Your task to perform on an android device: change keyboard looks Image 0: 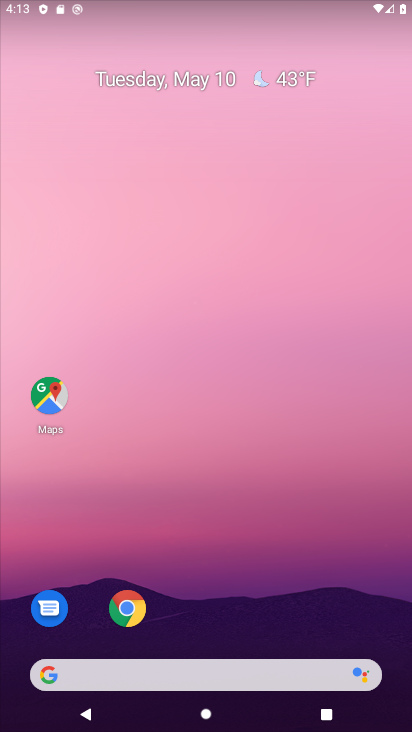
Step 0: drag from (260, 578) to (93, 4)
Your task to perform on an android device: change keyboard looks Image 1: 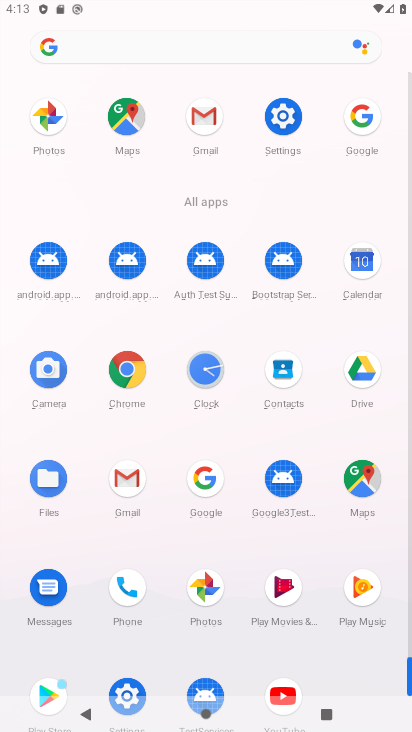
Step 1: click (278, 87)
Your task to perform on an android device: change keyboard looks Image 2: 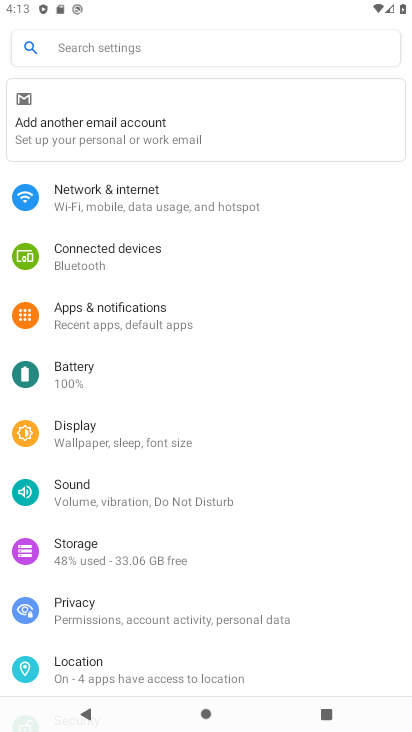
Step 2: drag from (150, 333) to (102, 161)
Your task to perform on an android device: change keyboard looks Image 3: 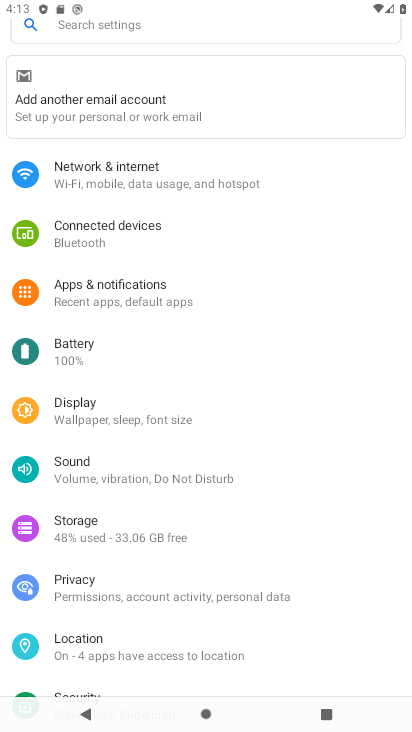
Step 3: drag from (130, 585) to (34, 228)
Your task to perform on an android device: change keyboard looks Image 4: 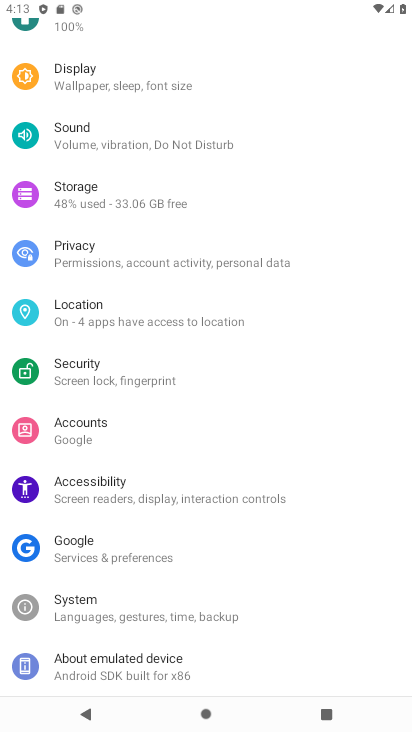
Step 4: click (78, 600)
Your task to perform on an android device: change keyboard looks Image 5: 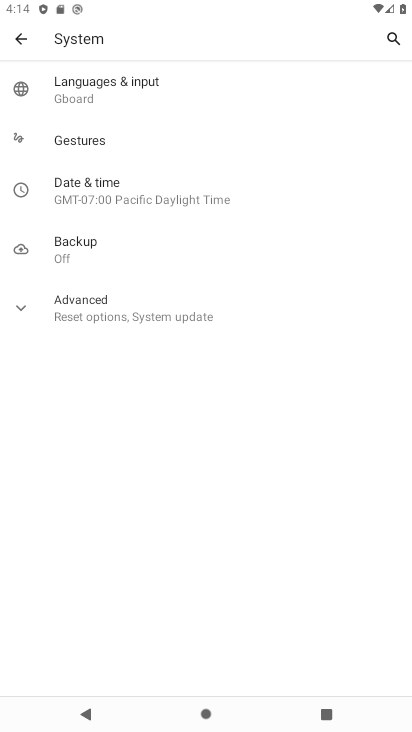
Step 5: click (69, 86)
Your task to perform on an android device: change keyboard looks Image 6: 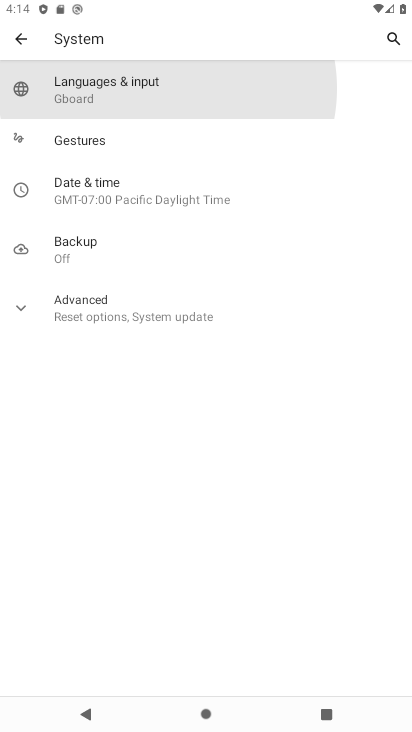
Step 6: click (69, 86)
Your task to perform on an android device: change keyboard looks Image 7: 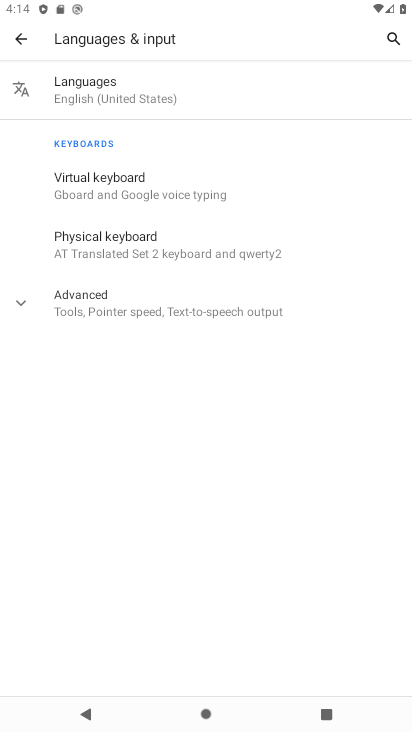
Step 7: click (71, 86)
Your task to perform on an android device: change keyboard looks Image 8: 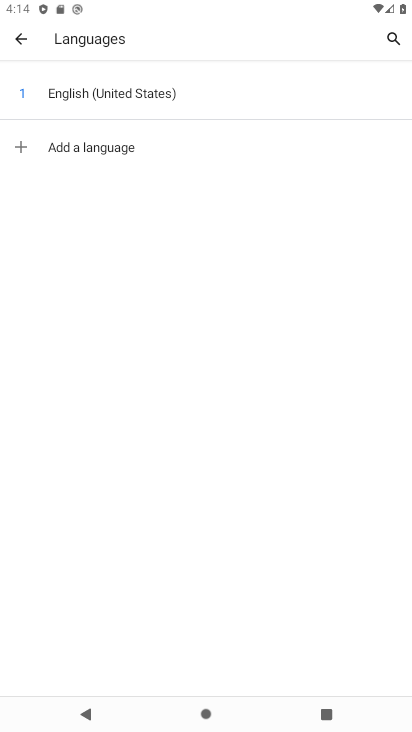
Step 8: click (78, 93)
Your task to perform on an android device: change keyboard looks Image 9: 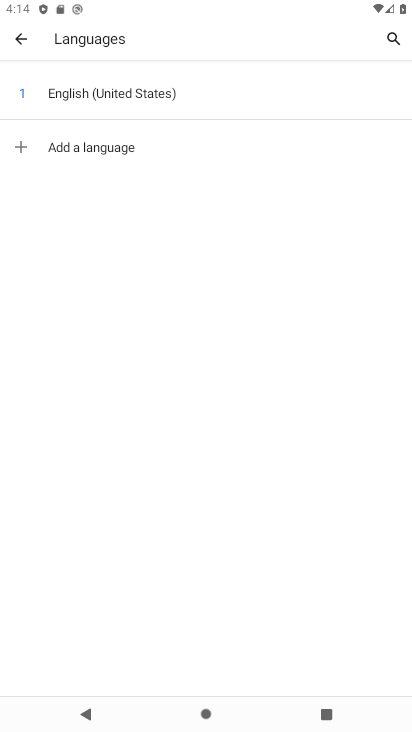
Step 9: click (78, 89)
Your task to perform on an android device: change keyboard looks Image 10: 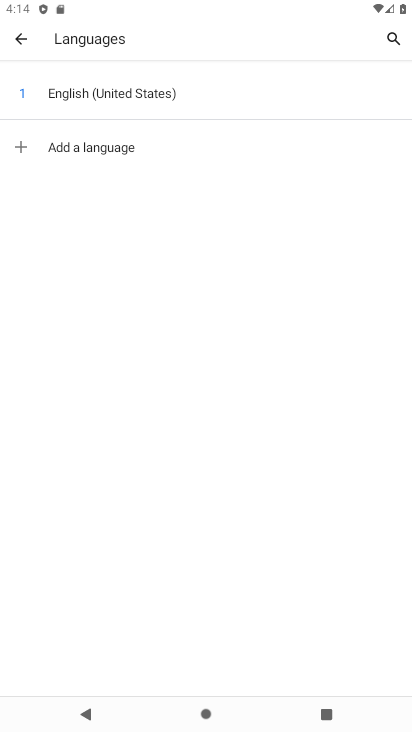
Step 10: click (78, 88)
Your task to perform on an android device: change keyboard looks Image 11: 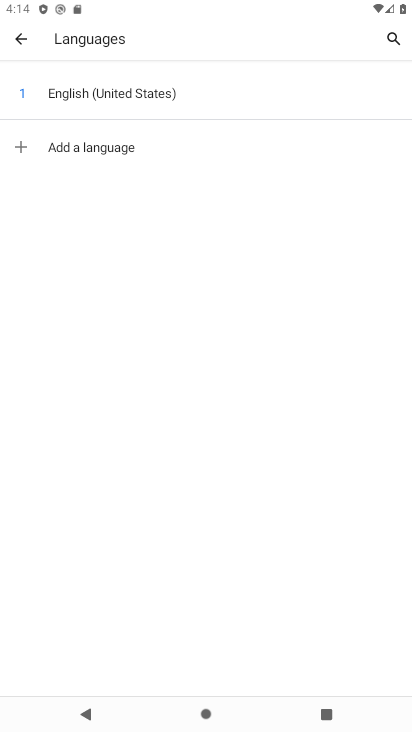
Step 11: click (120, 86)
Your task to perform on an android device: change keyboard looks Image 12: 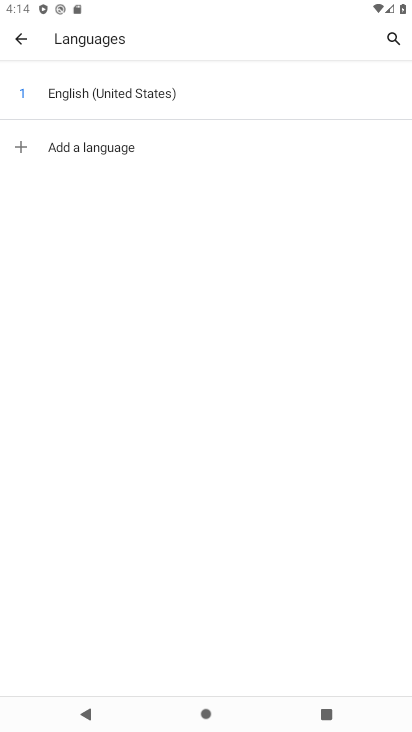
Step 12: click (119, 88)
Your task to perform on an android device: change keyboard looks Image 13: 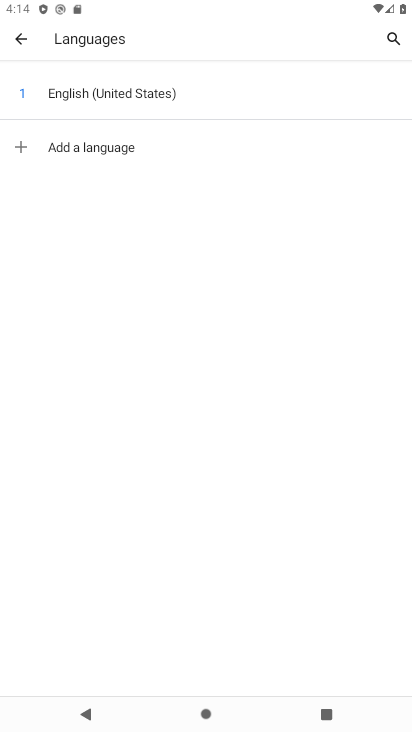
Step 13: click (122, 94)
Your task to perform on an android device: change keyboard looks Image 14: 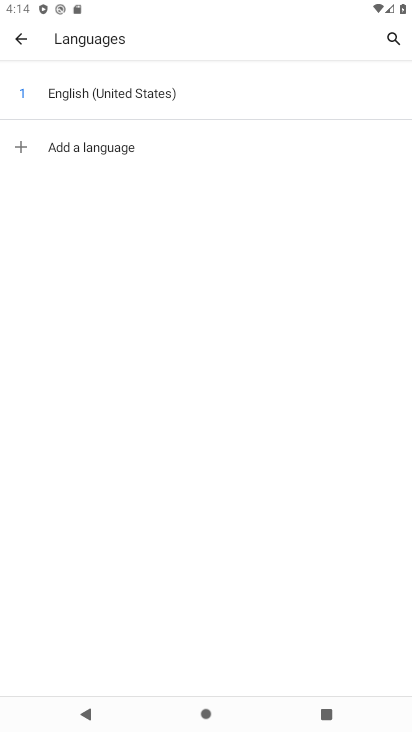
Step 14: click (76, 94)
Your task to perform on an android device: change keyboard looks Image 15: 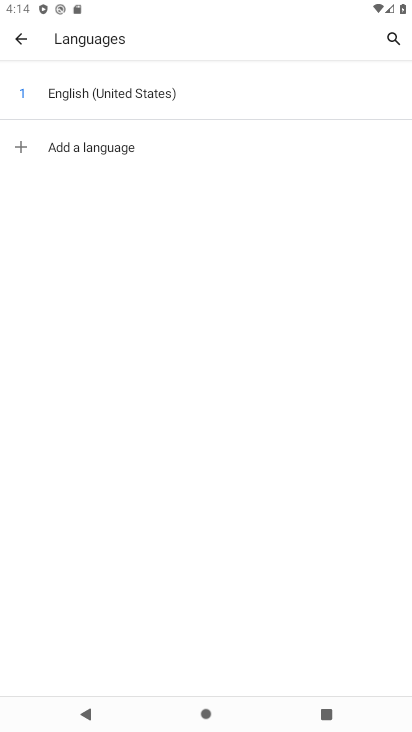
Step 15: click (77, 88)
Your task to perform on an android device: change keyboard looks Image 16: 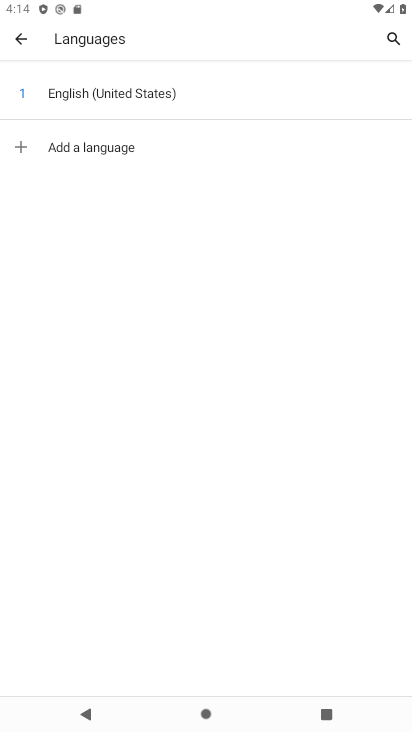
Step 16: click (77, 88)
Your task to perform on an android device: change keyboard looks Image 17: 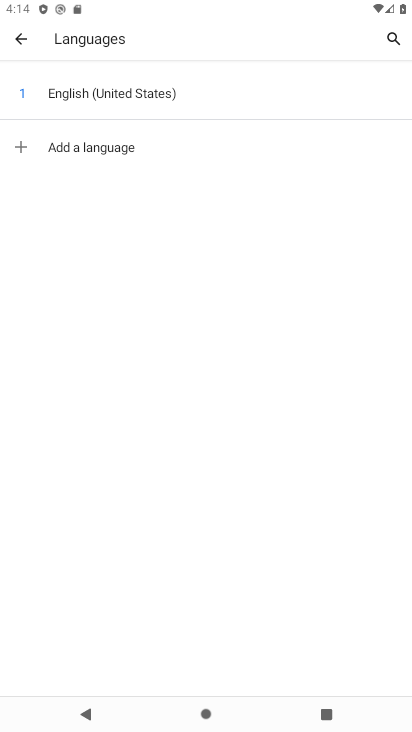
Step 17: click (82, 96)
Your task to perform on an android device: change keyboard looks Image 18: 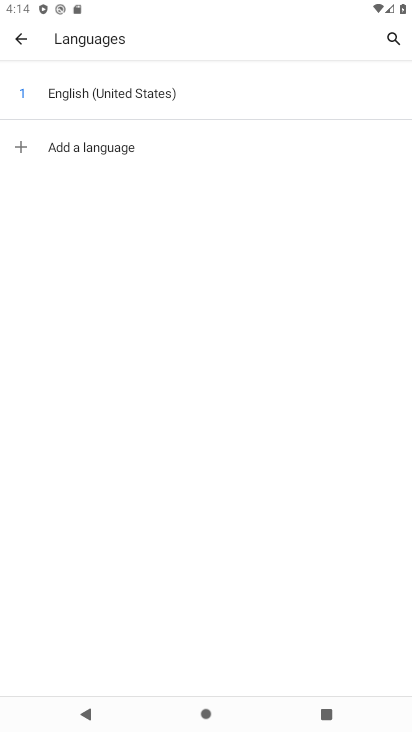
Step 18: click (81, 98)
Your task to perform on an android device: change keyboard looks Image 19: 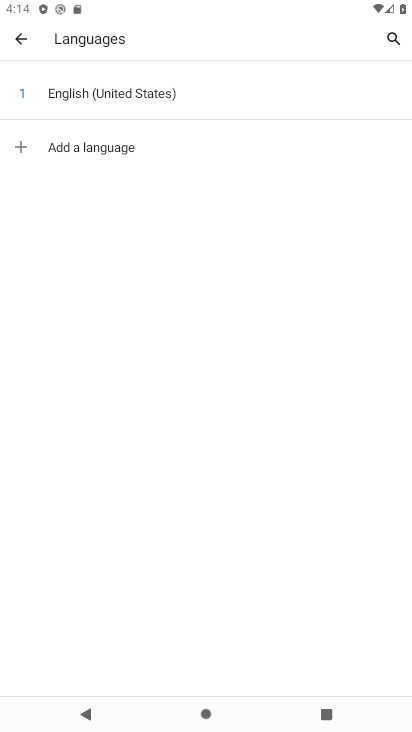
Step 19: click (80, 97)
Your task to perform on an android device: change keyboard looks Image 20: 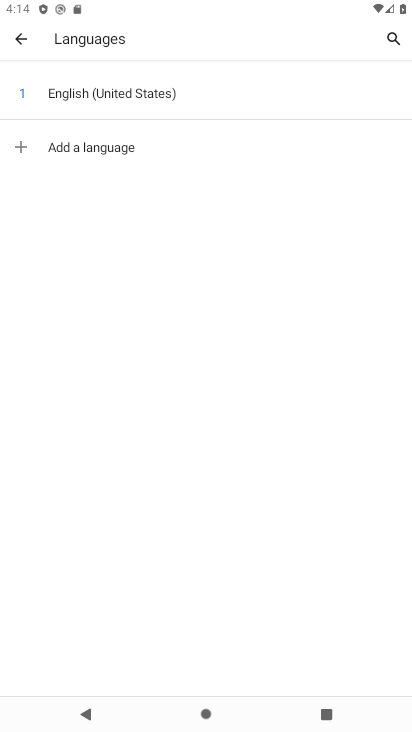
Step 20: click (76, 96)
Your task to perform on an android device: change keyboard looks Image 21: 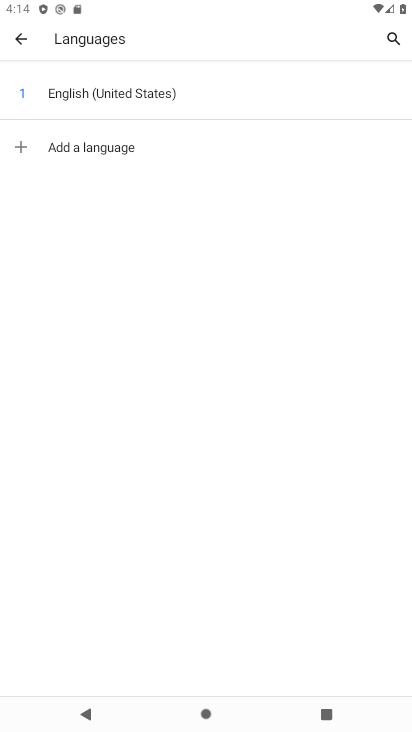
Step 21: click (74, 96)
Your task to perform on an android device: change keyboard looks Image 22: 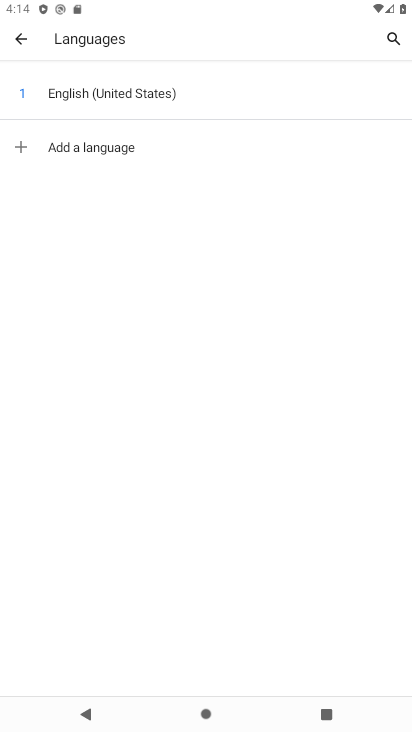
Step 22: click (73, 95)
Your task to perform on an android device: change keyboard looks Image 23: 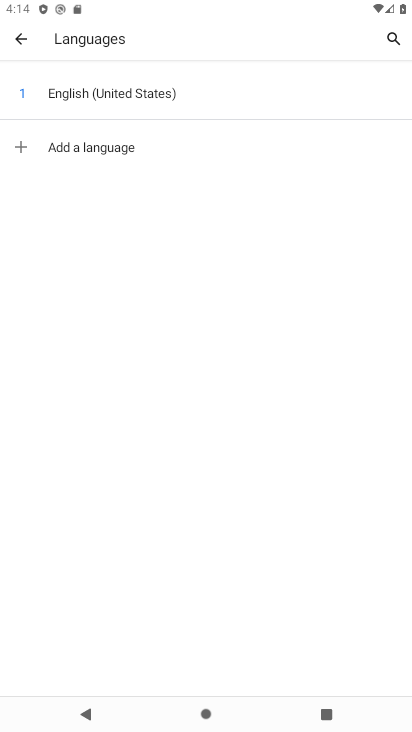
Step 23: click (73, 95)
Your task to perform on an android device: change keyboard looks Image 24: 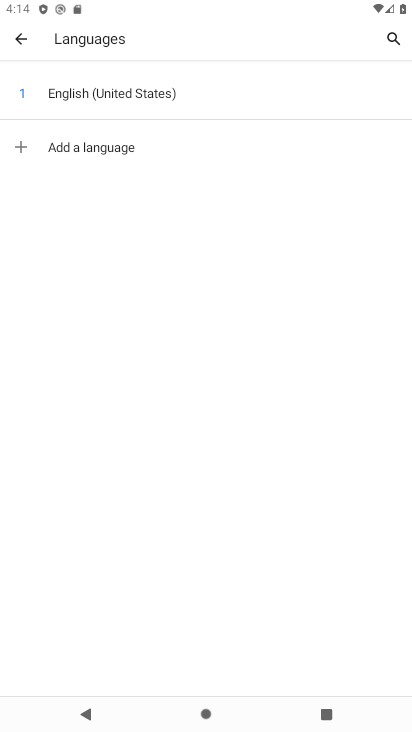
Step 24: click (71, 94)
Your task to perform on an android device: change keyboard looks Image 25: 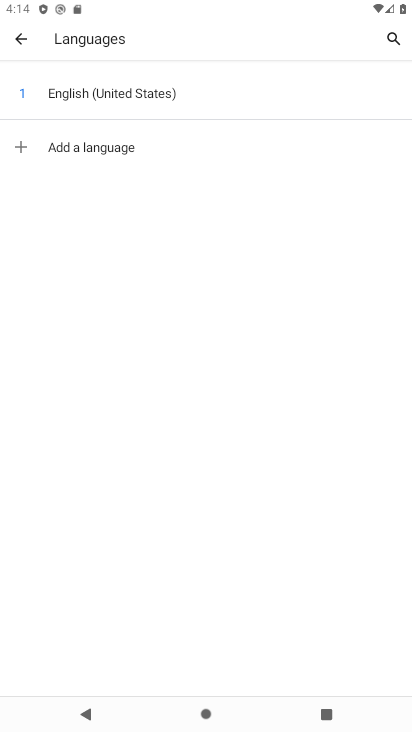
Step 25: click (69, 94)
Your task to perform on an android device: change keyboard looks Image 26: 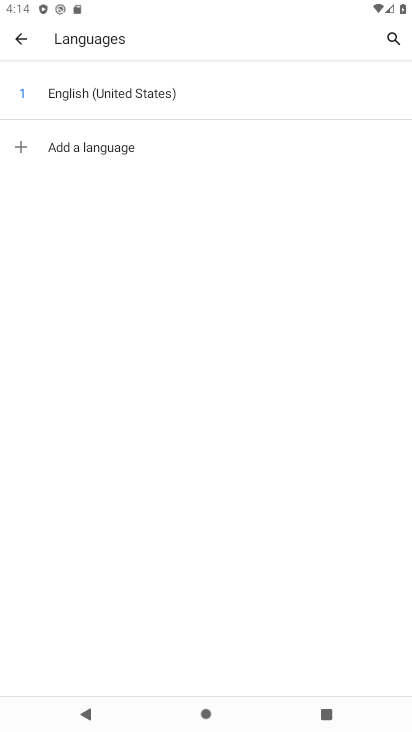
Step 26: click (68, 95)
Your task to perform on an android device: change keyboard looks Image 27: 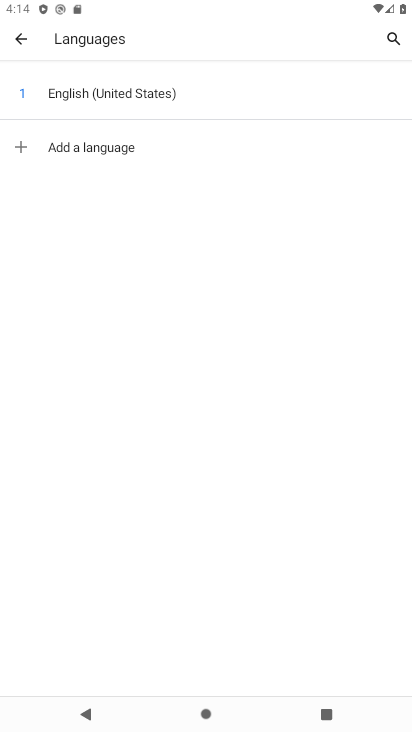
Step 27: click (68, 98)
Your task to perform on an android device: change keyboard looks Image 28: 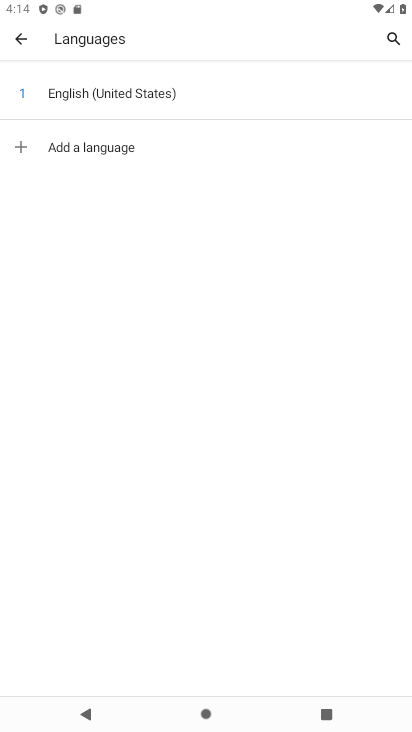
Step 28: click (70, 99)
Your task to perform on an android device: change keyboard looks Image 29: 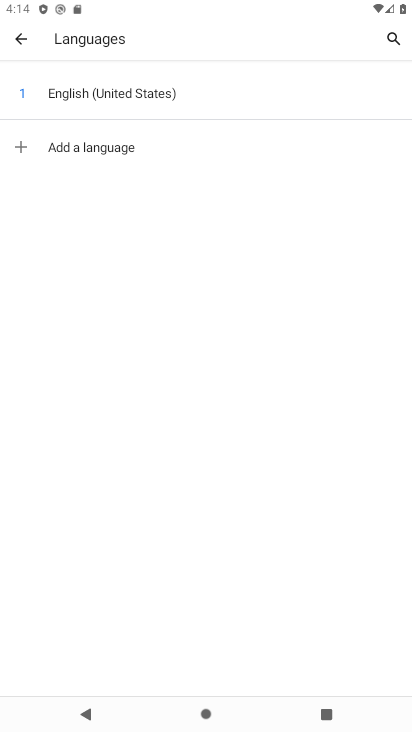
Step 29: click (71, 99)
Your task to perform on an android device: change keyboard looks Image 30: 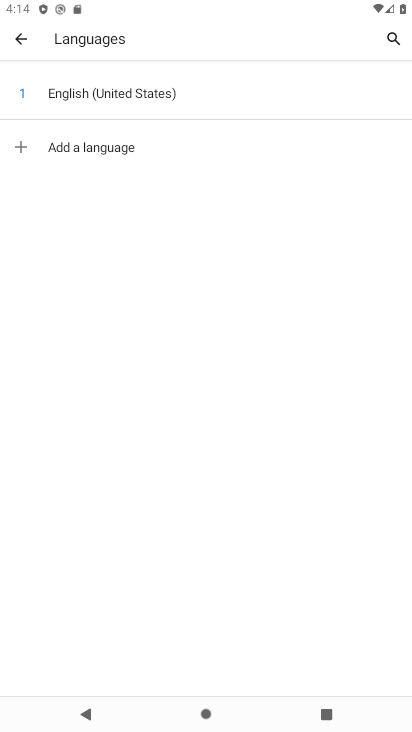
Step 30: click (72, 99)
Your task to perform on an android device: change keyboard looks Image 31: 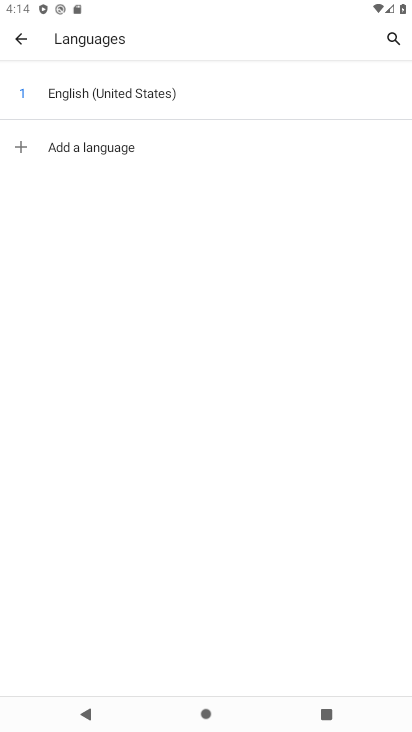
Step 31: click (73, 100)
Your task to perform on an android device: change keyboard looks Image 32: 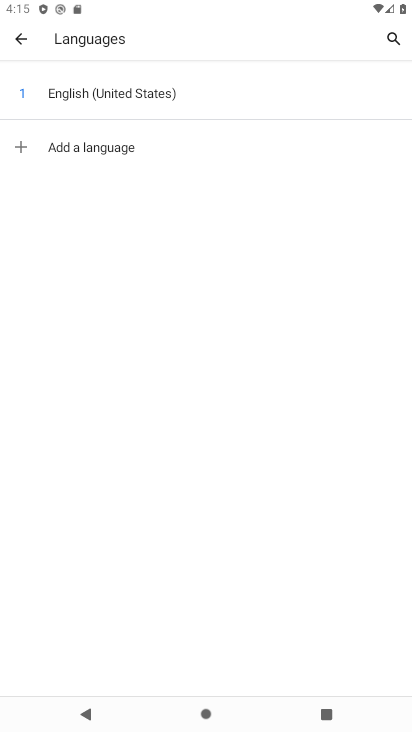
Step 32: click (72, 92)
Your task to perform on an android device: change keyboard looks Image 33: 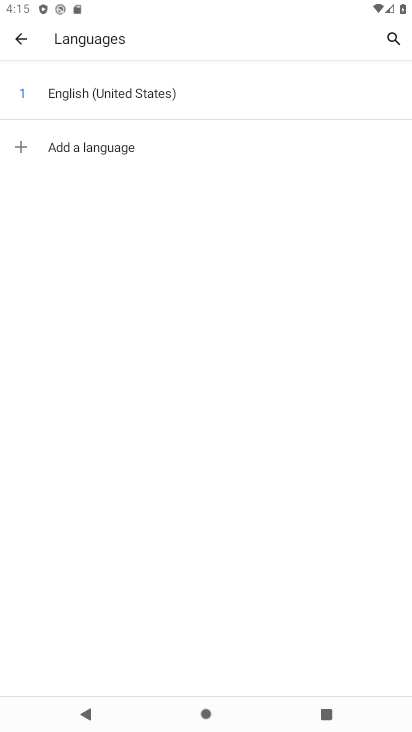
Step 33: click (71, 92)
Your task to perform on an android device: change keyboard looks Image 34: 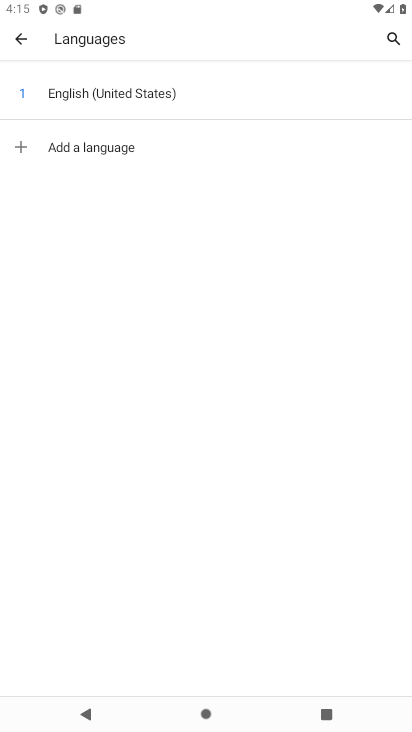
Step 34: click (71, 93)
Your task to perform on an android device: change keyboard looks Image 35: 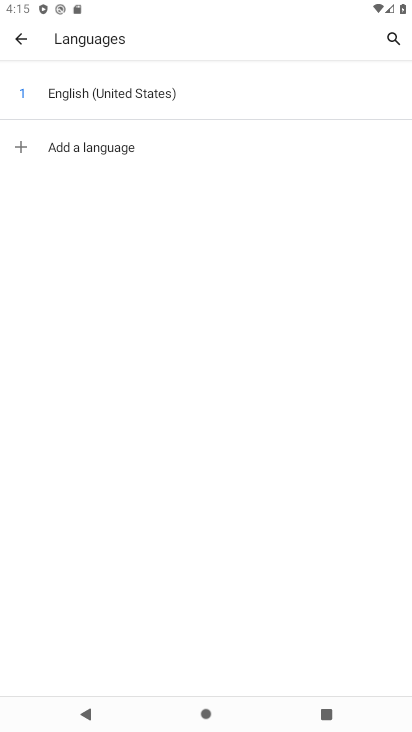
Step 35: click (71, 96)
Your task to perform on an android device: change keyboard looks Image 36: 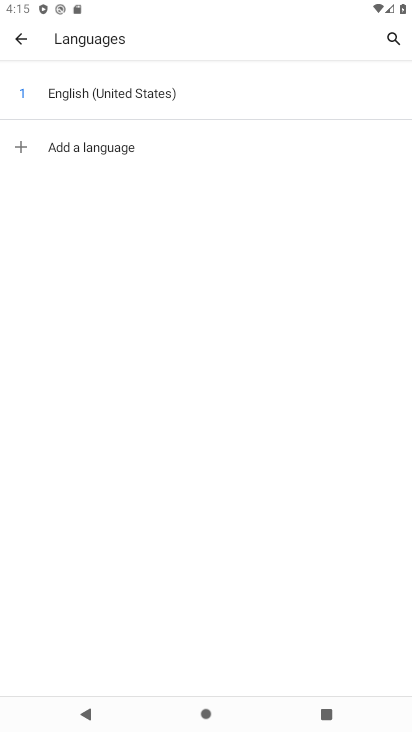
Step 36: click (72, 98)
Your task to perform on an android device: change keyboard looks Image 37: 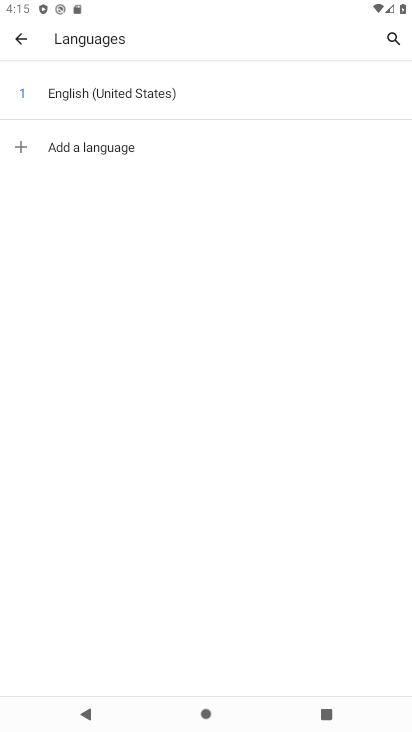
Step 37: click (69, 143)
Your task to perform on an android device: change keyboard looks Image 38: 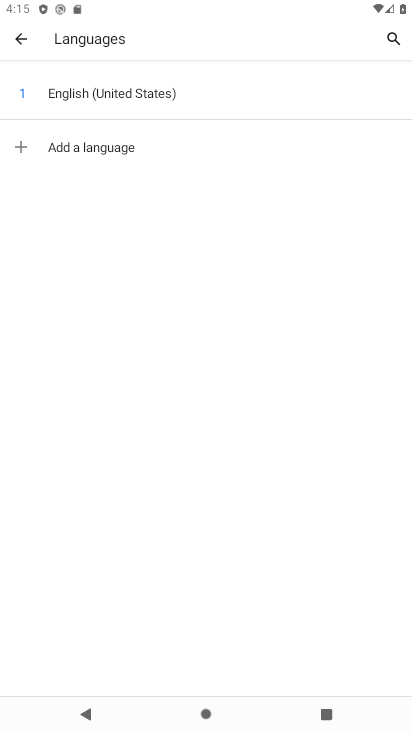
Step 38: click (69, 143)
Your task to perform on an android device: change keyboard looks Image 39: 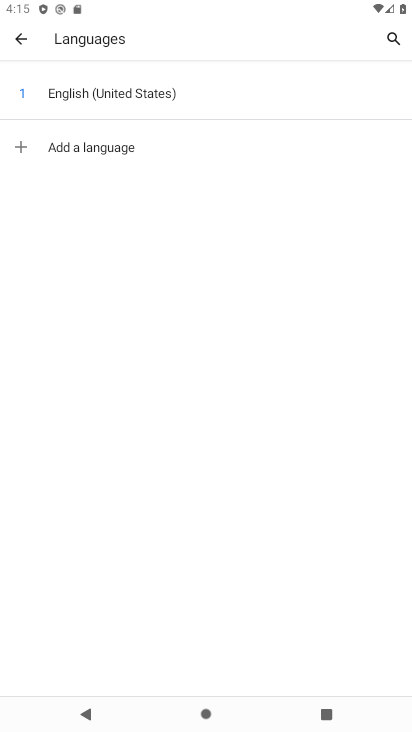
Step 39: click (68, 145)
Your task to perform on an android device: change keyboard looks Image 40: 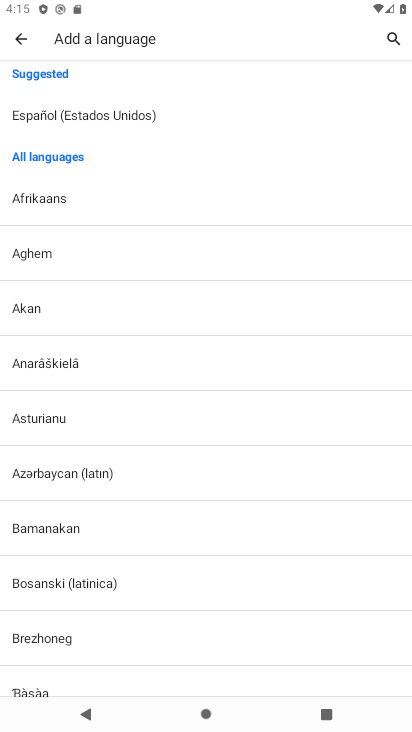
Step 40: click (18, 41)
Your task to perform on an android device: change keyboard looks Image 41: 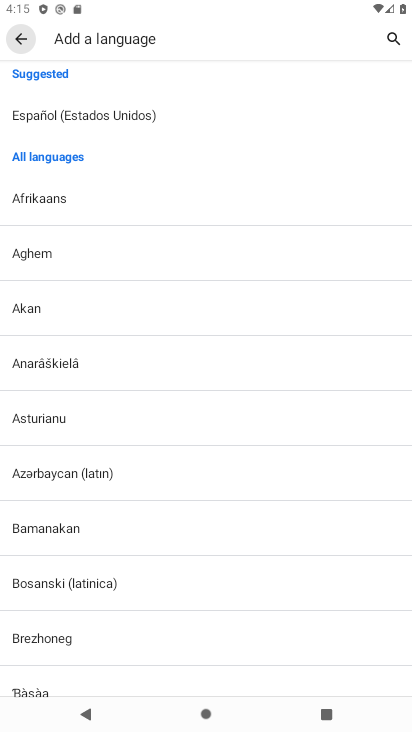
Step 41: click (17, 40)
Your task to perform on an android device: change keyboard looks Image 42: 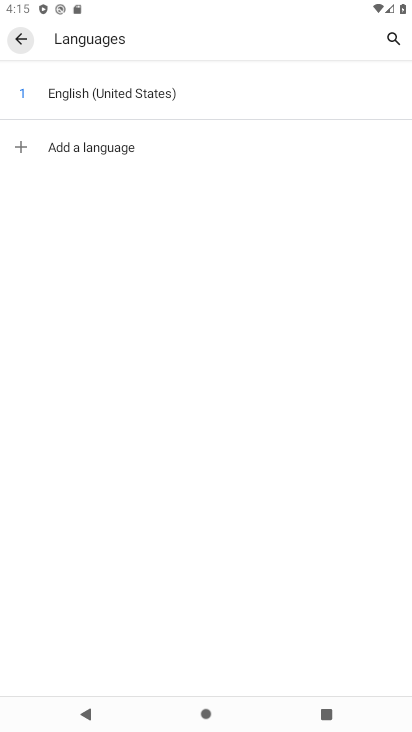
Step 42: click (17, 40)
Your task to perform on an android device: change keyboard looks Image 43: 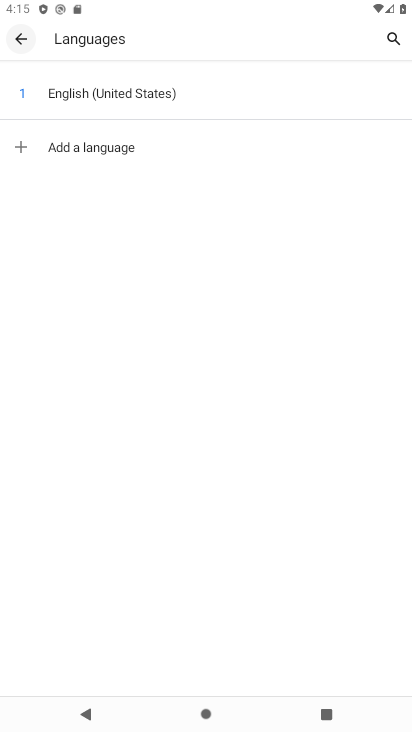
Step 43: click (17, 40)
Your task to perform on an android device: change keyboard looks Image 44: 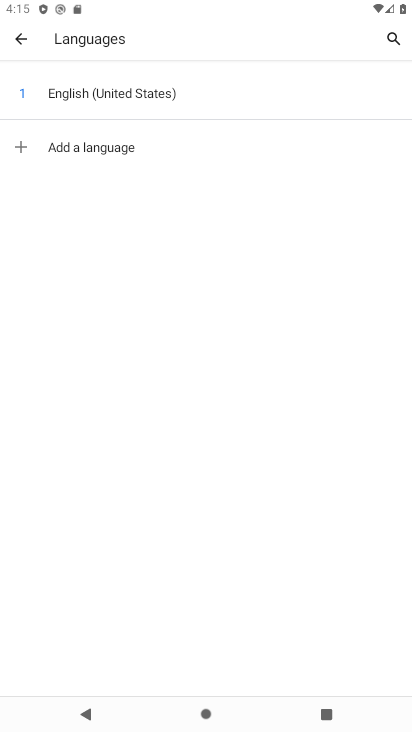
Step 44: click (20, 38)
Your task to perform on an android device: change keyboard looks Image 45: 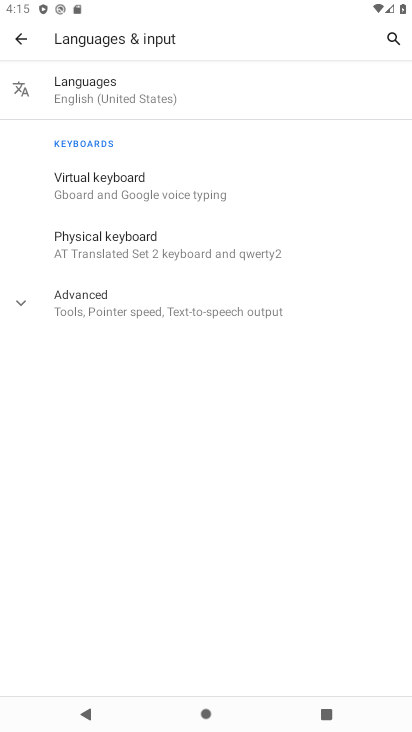
Step 45: click (79, 184)
Your task to perform on an android device: change keyboard looks Image 46: 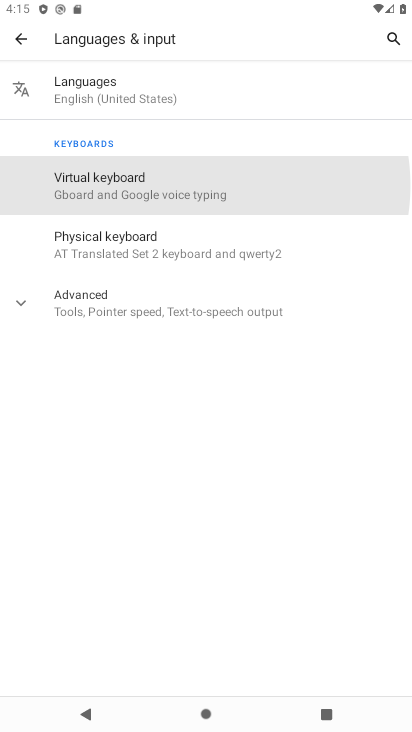
Step 46: click (72, 178)
Your task to perform on an android device: change keyboard looks Image 47: 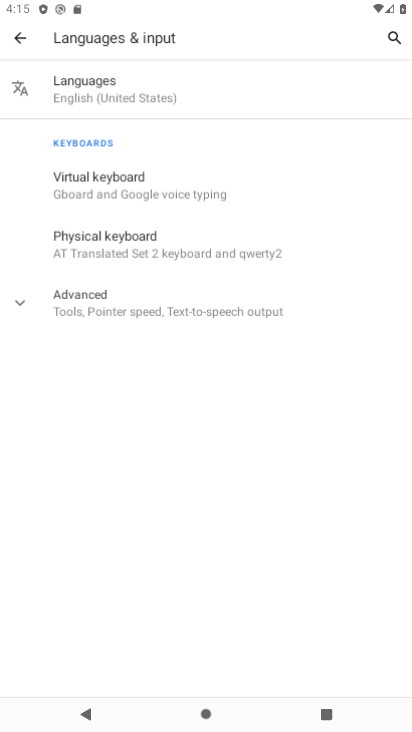
Step 47: click (72, 178)
Your task to perform on an android device: change keyboard looks Image 48: 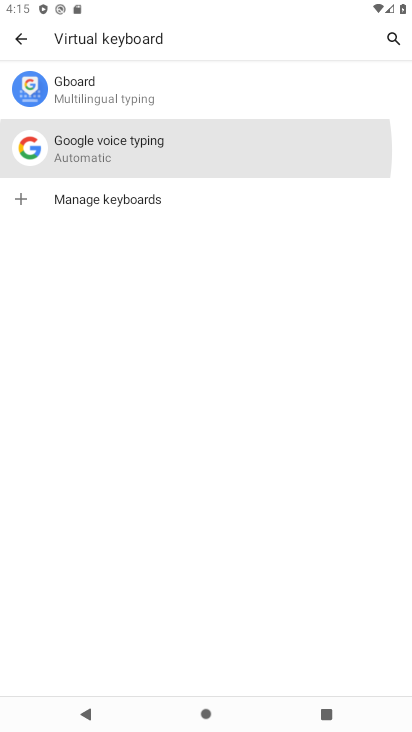
Step 48: click (69, 178)
Your task to perform on an android device: change keyboard looks Image 49: 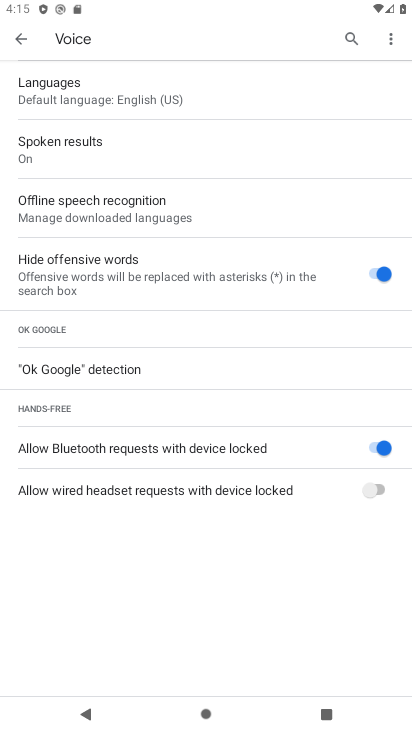
Step 49: click (16, 37)
Your task to perform on an android device: change keyboard looks Image 50: 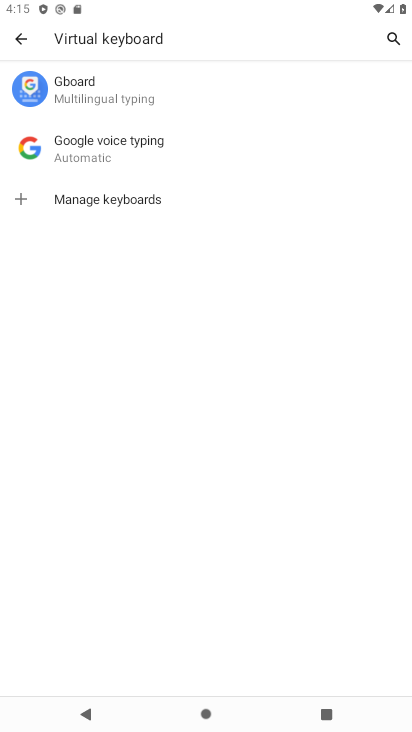
Step 50: click (84, 96)
Your task to perform on an android device: change keyboard looks Image 51: 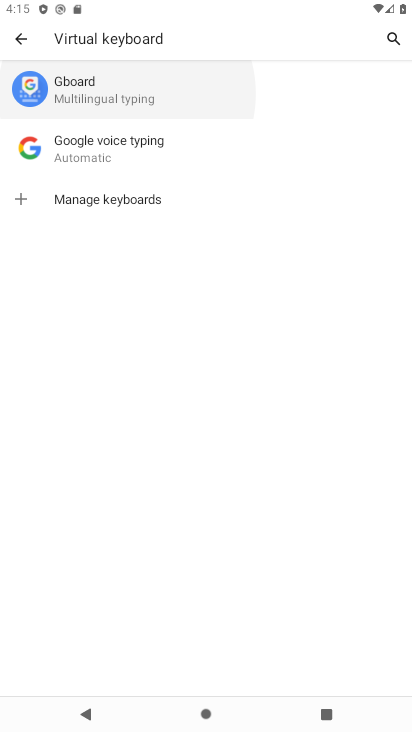
Step 51: click (86, 96)
Your task to perform on an android device: change keyboard looks Image 52: 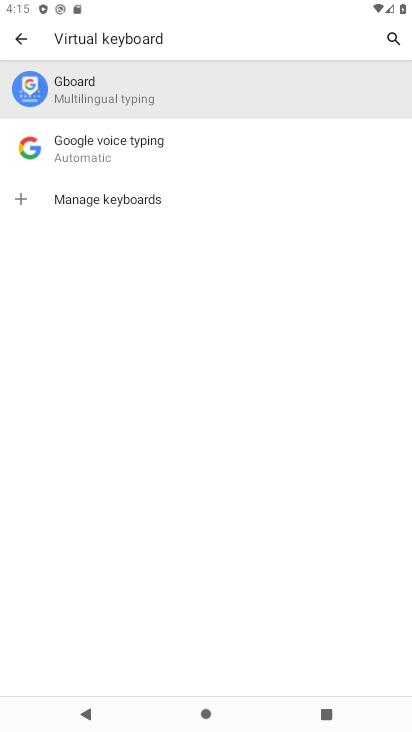
Step 52: click (86, 96)
Your task to perform on an android device: change keyboard looks Image 53: 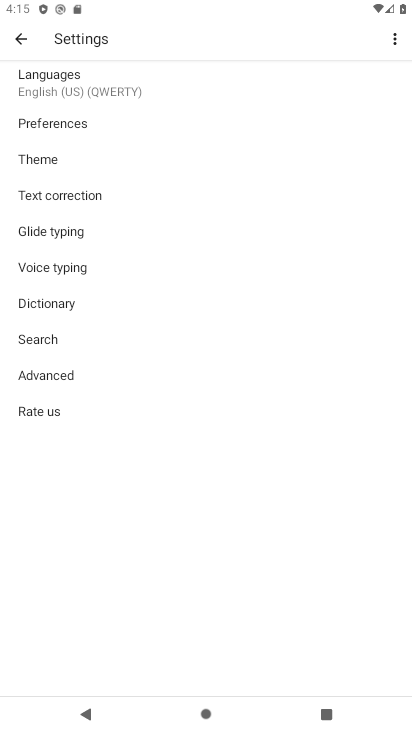
Step 53: click (32, 155)
Your task to perform on an android device: change keyboard looks Image 54: 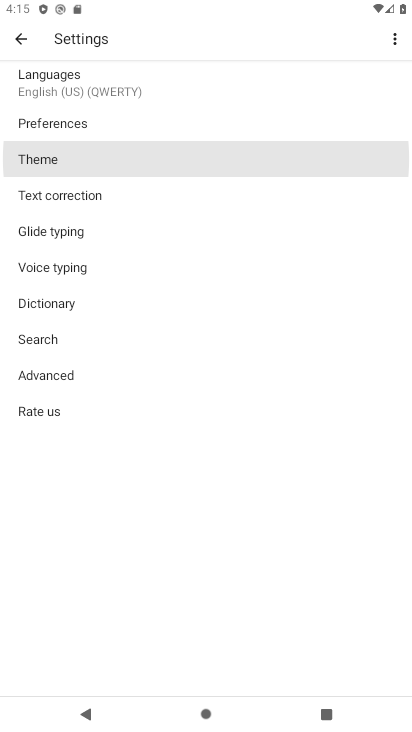
Step 54: click (32, 155)
Your task to perform on an android device: change keyboard looks Image 55: 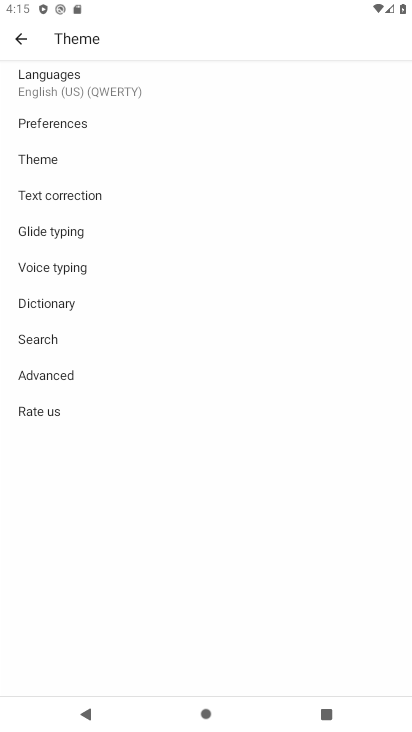
Step 55: click (32, 155)
Your task to perform on an android device: change keyboard looks Image 56: 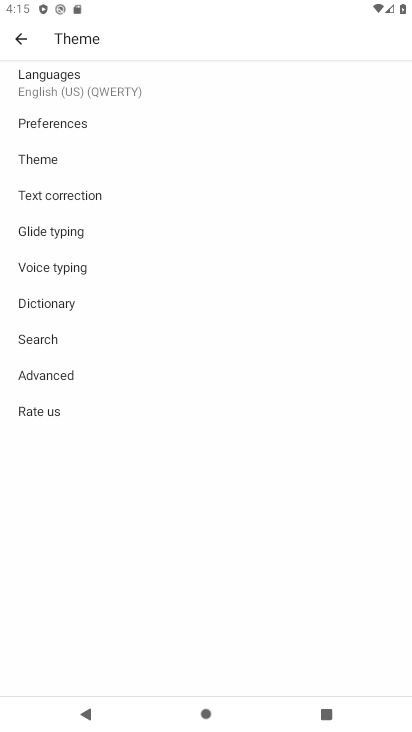
Step 56: click (32, 155)
Your task to perform on an android device: change keyboard looks Image 57: 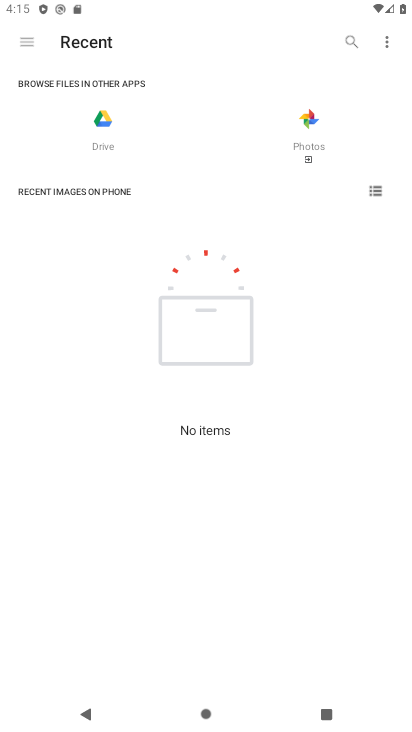
Step 57: task complete